Your task to perform on an android device: delete a single message in the gmail app Image 0: 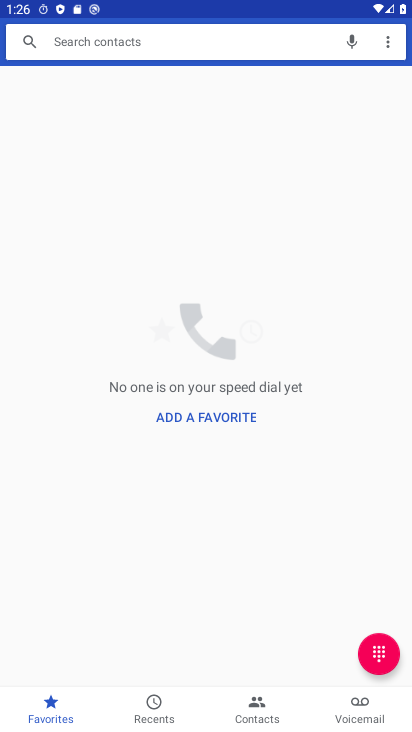
Step 0: drag from (180, 640) to (251, 640)
Your task to perform on an android device: delete a single message in the gmail app Image 1: 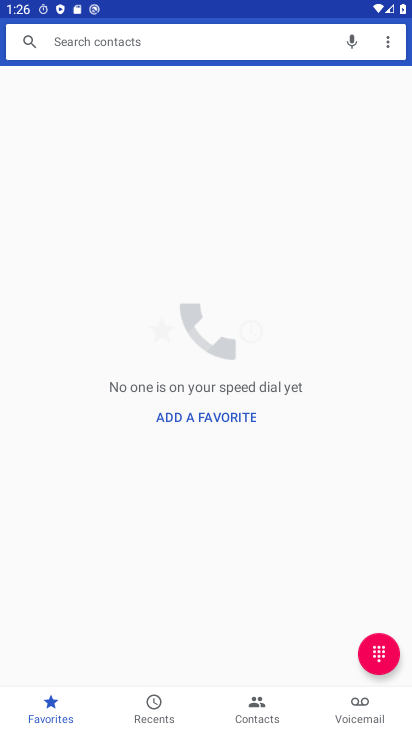
Step 1: press home button
Your task to perform on an android device: delete a single message in the gmail app Image 2: 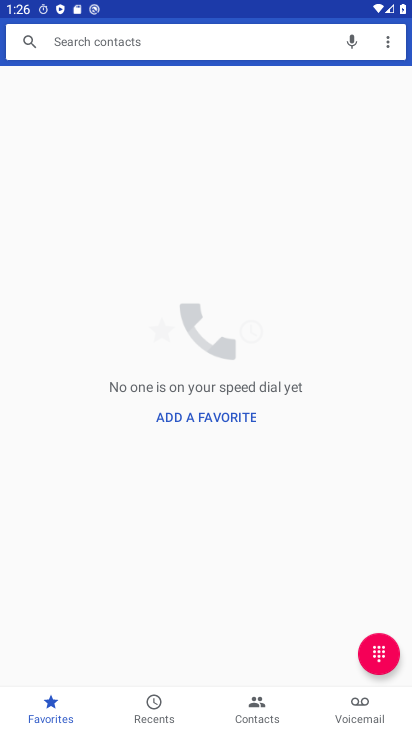
Step 2: drag from (251, 640) to (313, 506)
Your task to perform on an android device: delete a single message in the gmail app Image 3: 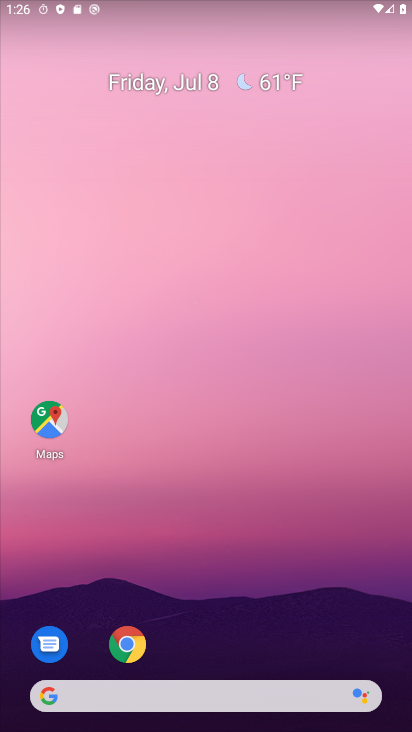
Step 3: drag from (212, 70) to (212, 31)
Your task to perform on an android device: delete a single message in the gmail app Image 4: 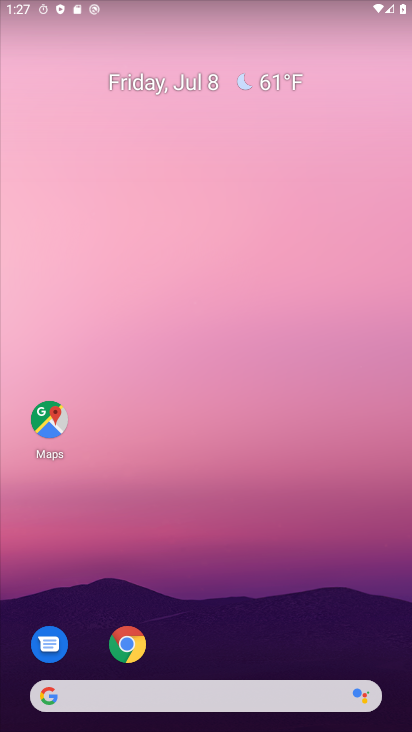
Step 4: drag from (187, 558) to (189, 119)
Your task to perform on an android device: delete a single message in the gmail app Image 5: 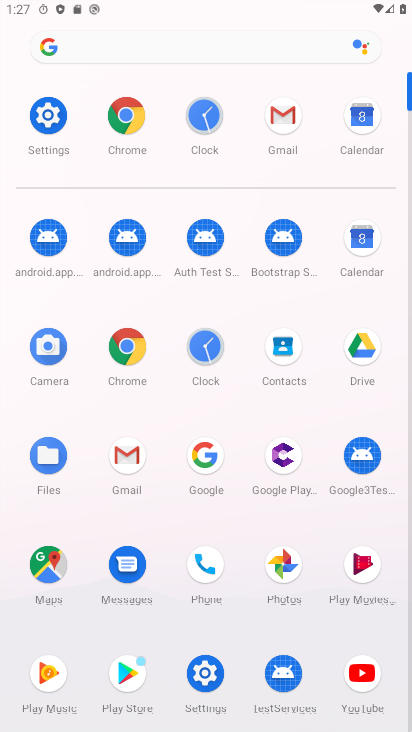
Step 5: click (284, 131)
Your task to perform on an android device: delete a single message in the gmail app Image 6: 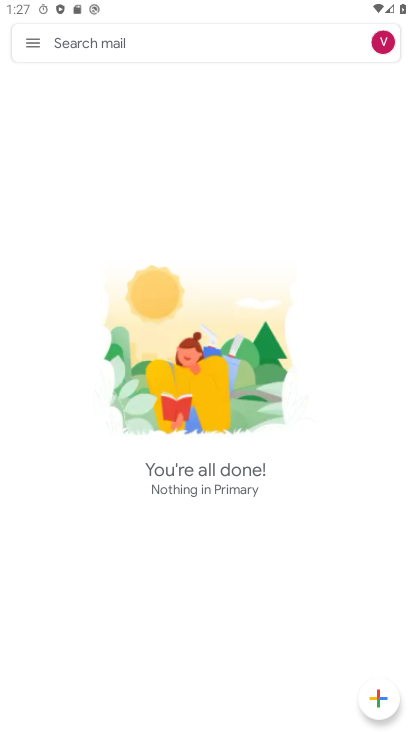
Step 6: click (30, 42)
Your task to perform on an android device: delete a single message in the gmail app Image 7: 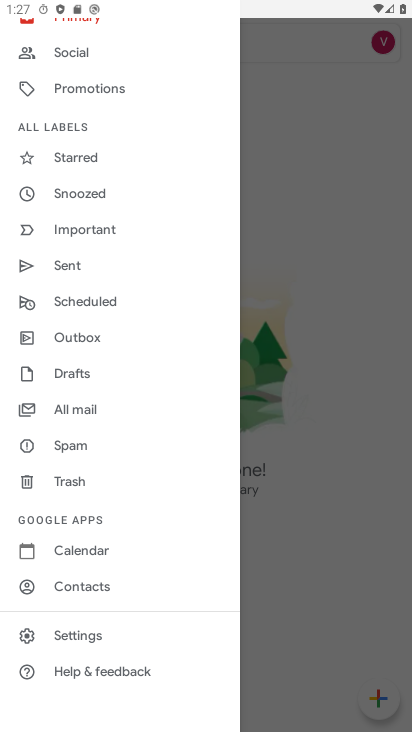
Step 7: drag from (96, 197) to (117, 394)
Your task to perform on an android device: delete a single message in the gmail app Image 8: 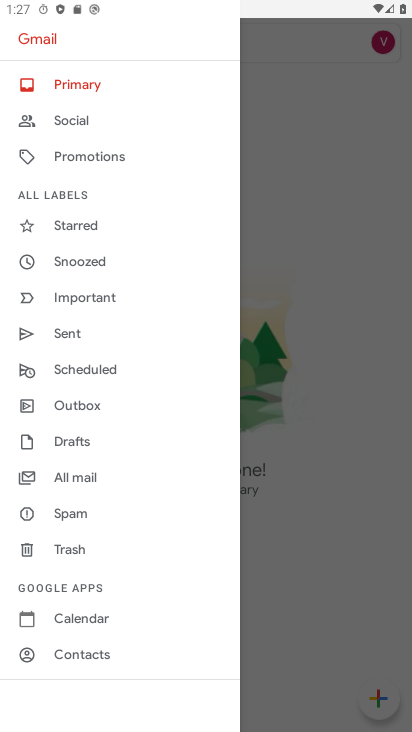
Step 8: drag from (95, 181) to (154, 572)
Your task to perform on an android device: delete a single message in the gmail app Image 9: 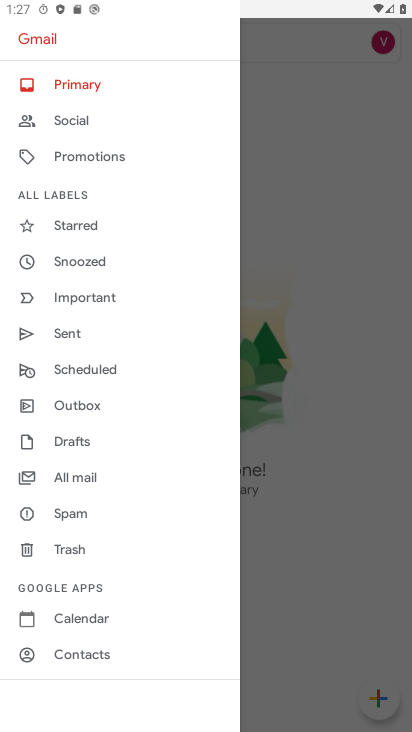
Step 9: drag from (113, 269) to (169, 575)
Your task to perform on an android device: delete a single message in the gmail app Image 10: 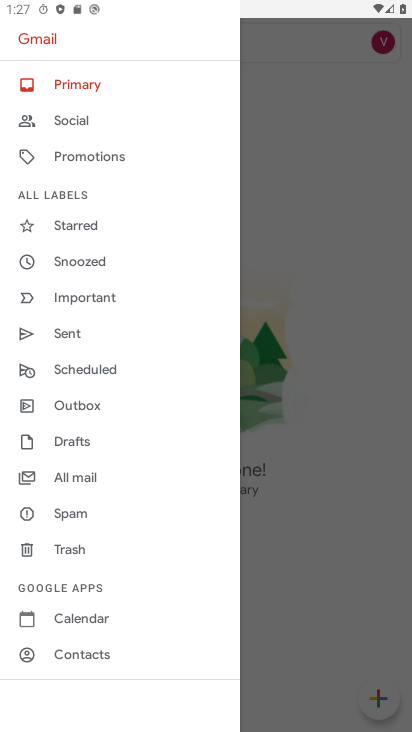
Step 10: drag from (139, 292) to (139, 548)
Your task to perform on an android device: delete a single message in the gmail app Image 11: 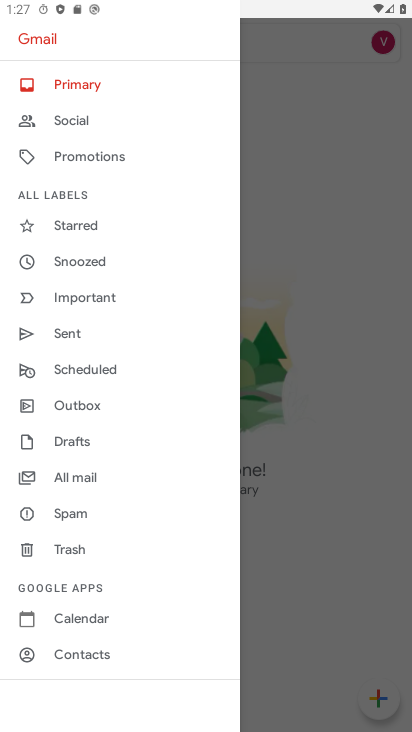
Step 11: click (67, 478)
Your task to perform on an android device: delete a single message in the gmail app Image 12: 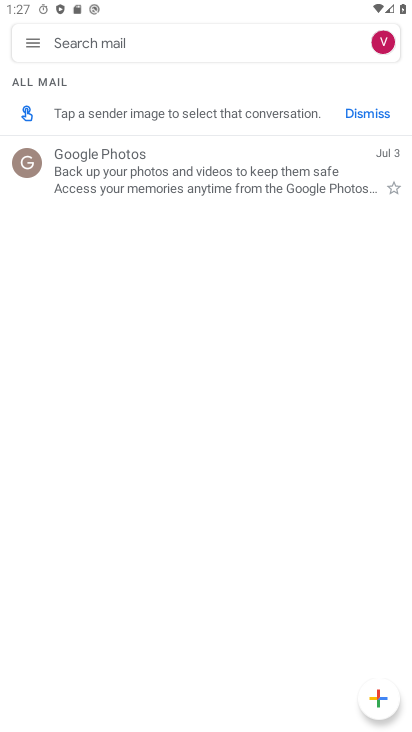
Step 12: click (131, 177)
Your task to perform on an android device: delete a single message in the gmail app Image 13: 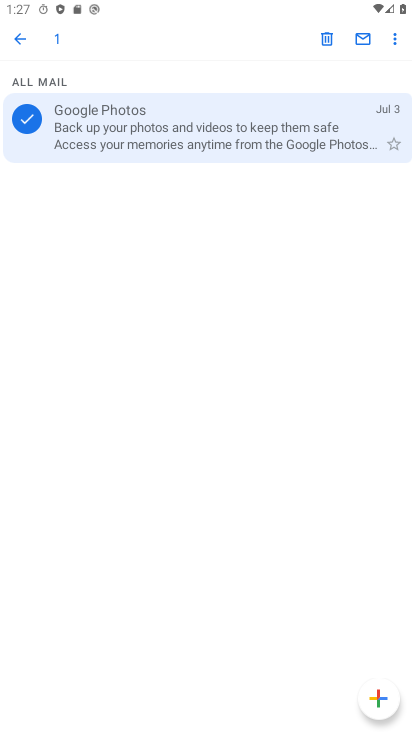
Step 13: click (325, 38)
Your task to perform on an android device: delete a single message in the gmail app Image 14: 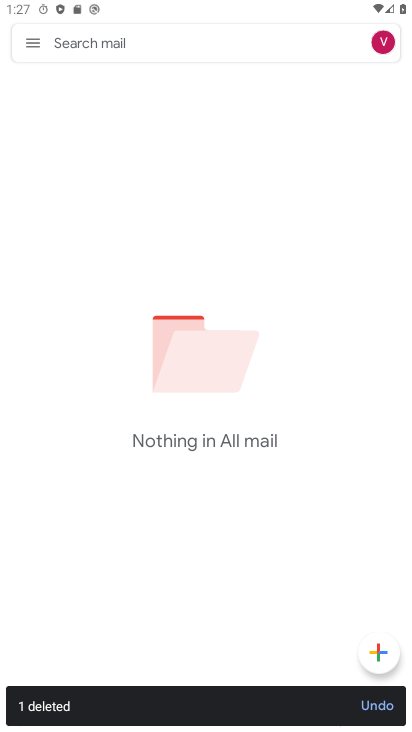
Step 14: task complete